Your task to perform on an android device: Show me the top rated dinnerware on Crate & Barrel Image 0: 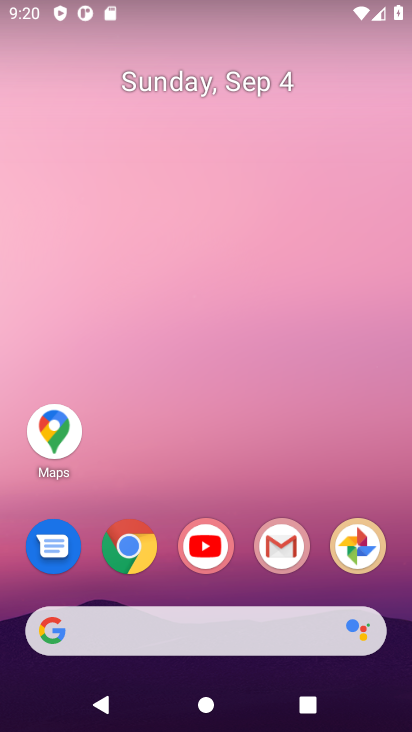
Step 0: click (143, 553)
Your task to perform on an android device: Show me the top rated dinnerware on Crate & Barrel Image 1: 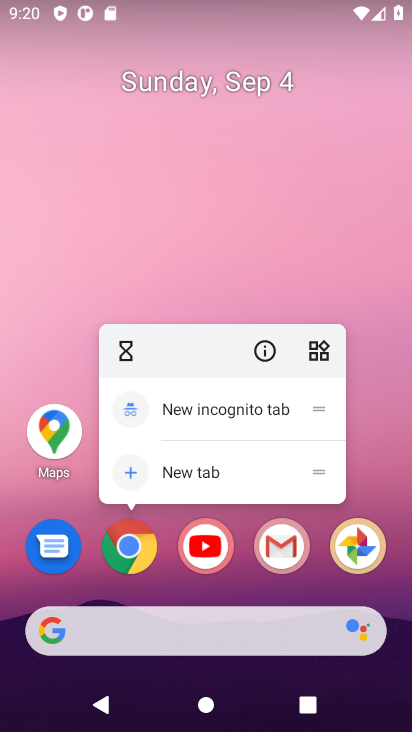
Step 1: click (136, 556)
Your task to perform on an android device: Show me the top rated dinnerware on Crate & Barrel Image 2: 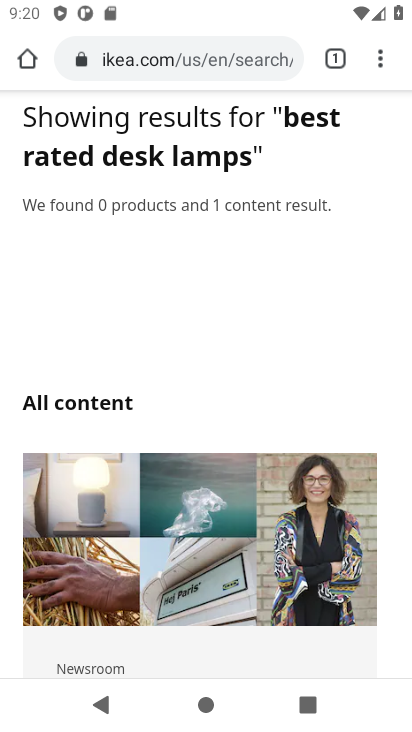
Step 2: click (148, 64)
Your task to perform on an android device: Show me the top rated dinnerware on Crate & Barrel Image 3: 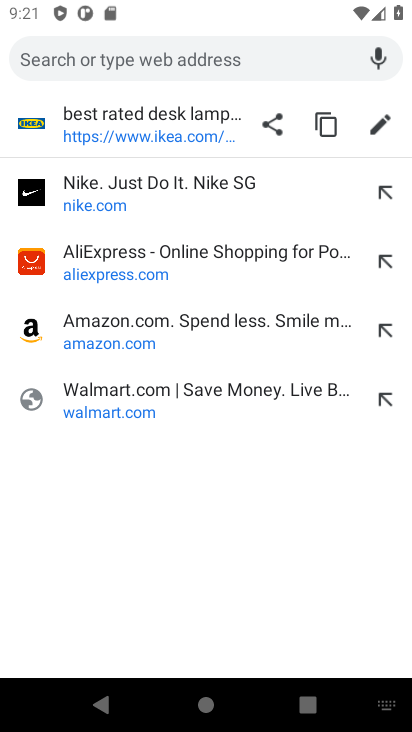
Step 3: type " Crate & Barrel"
Your task to perform on an android device: Show me the top rated dinnerware on Crate & Barrel Image 4: 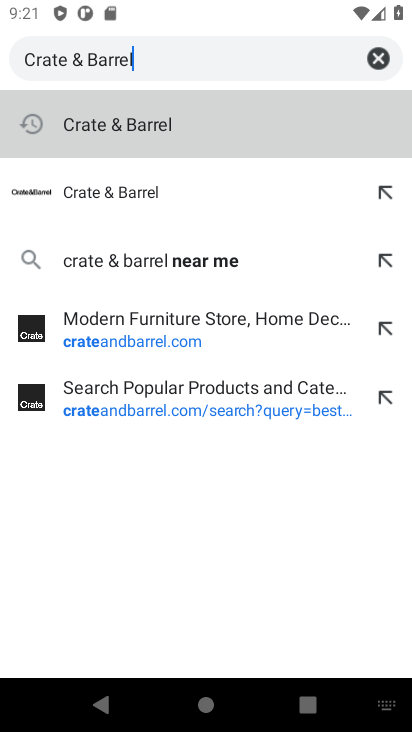
Step 4: click (93, 202)
Your task to perform on an android device: Show me the top rated dinnerware on Crate & Barrel Image 5: 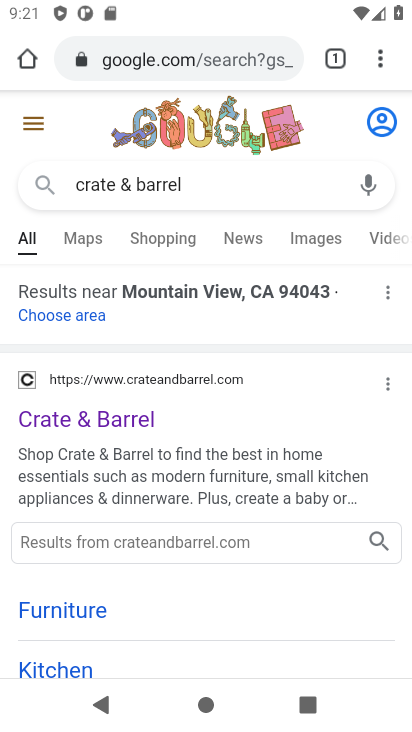
Step 5: click (107, 425)
Your task to perform on an android device: Show me the top rated dinnerware on Crate & Barrel Image 6: 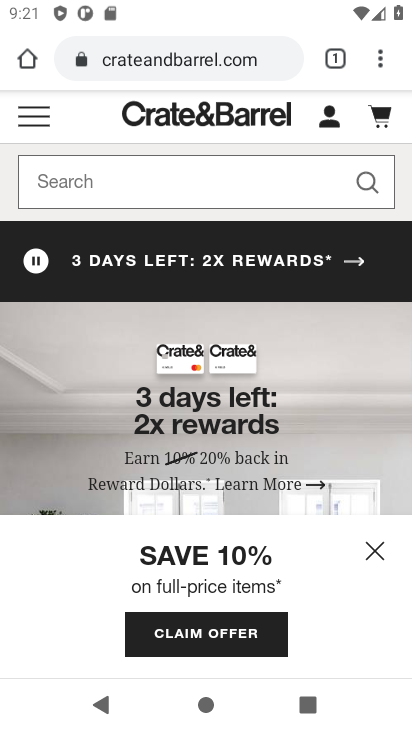
Step 6: click (371, 184)
Your task to perform on an android device: Show me the top rated dinnerware on Crate & Barrel Image 7: 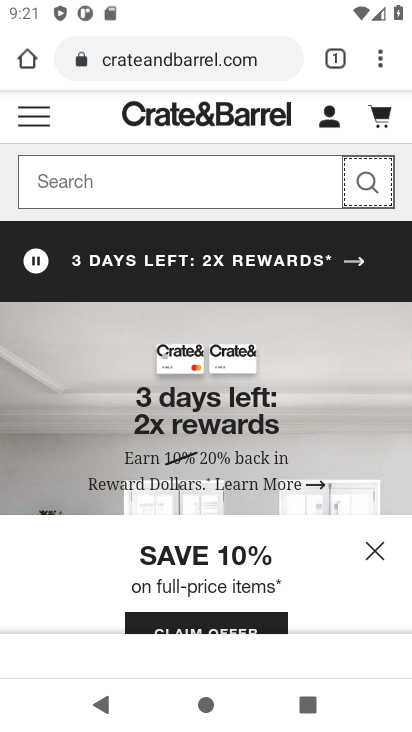
Step 7: click (208, 191)
Your task to perform on an android device: Show me the top rated dinnerware on Crate & Barrel Image 8: 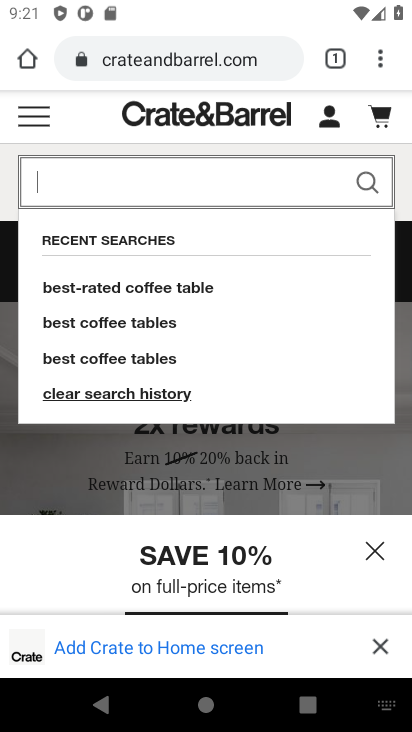
Step 8: type "top rated dinnerware"
Your task to perform on an android device: Show me the top rated dinnerware on Crate & Barrel Image 9: 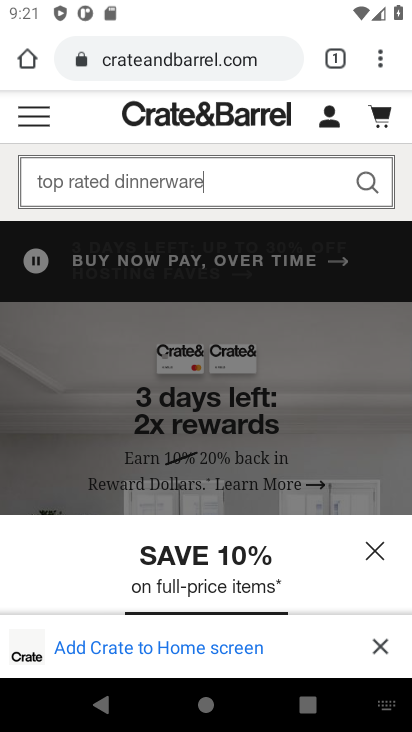
Step 9: click (359, 181)
Your task to perform on an android device: Show me the top rated dinnerware on Crate & Barrel Image 10: 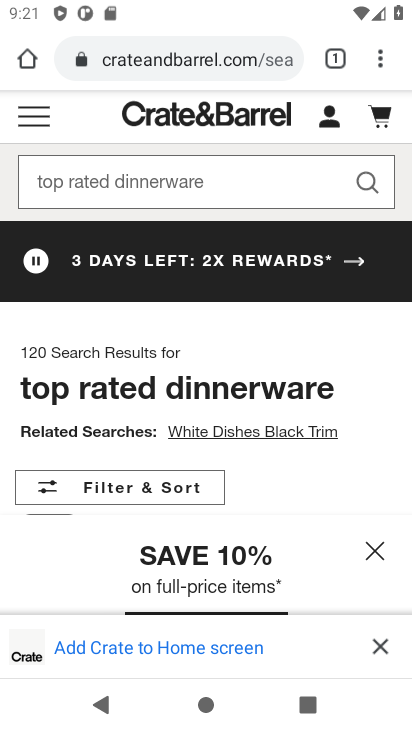
Step 10: task complete